Your task to perform on an android device: Open calendar and show me the first week of next month Image 0: 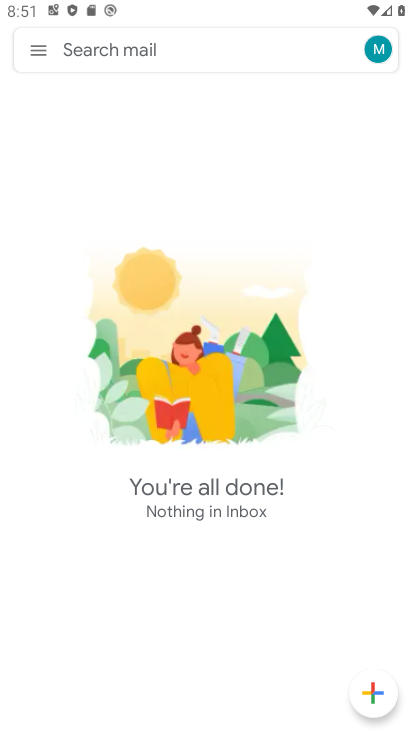
Step 0: press home button
Your task to perform on an android device: Open calendar and show me the first week of next month Image 1: 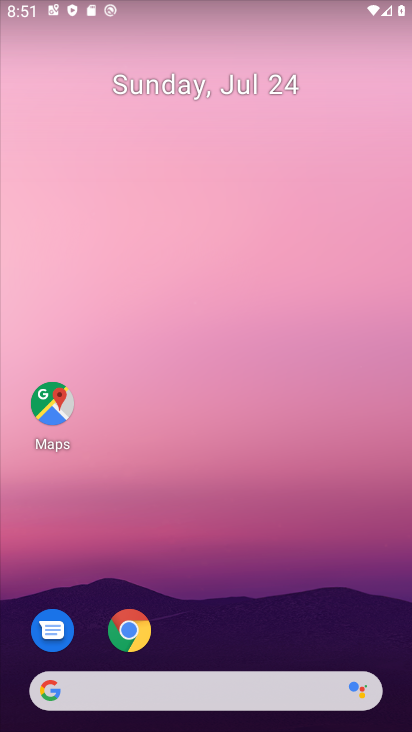
Step 1: drag from (229, 621) to (194, 233)
Your task to perform on an android device: Open calendar and show me the first week of next month Image 2: 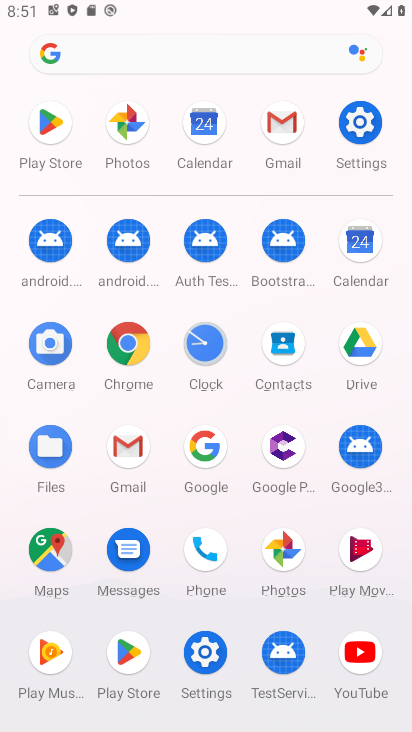
Step 2: click (362, 254)
Your task to perform on an android device: Open calendar and show me the first week of next month Image 3: 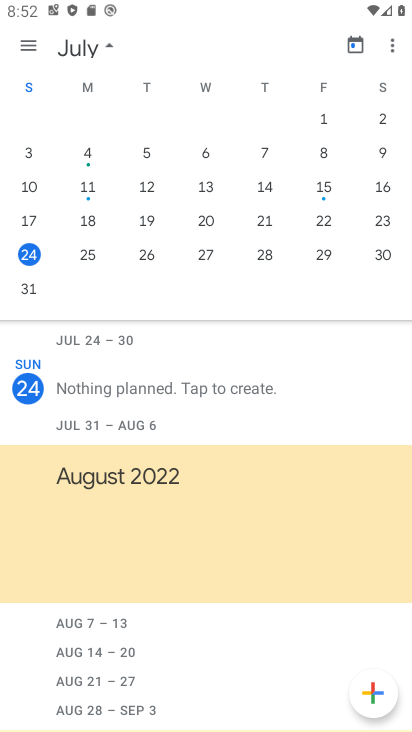
Step 3: task complete